Your task to perform on an android device: turn off sleep mode Image 0: 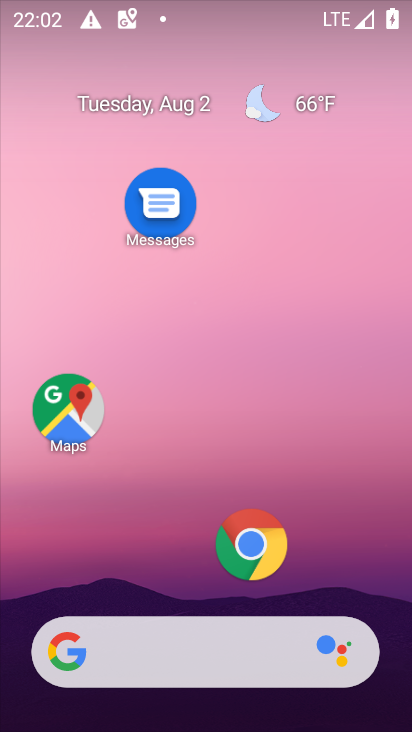
Step 0: drag from (176, 584) to (182, 226)
Your task to perform on an android device: turn off sleep mode Image 1: 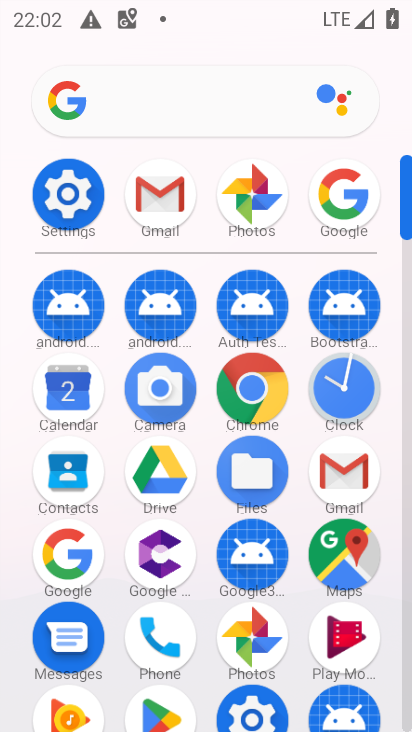
Step 1: click (78, 186)
Your task to perform on an android device: turn off sleep mode Image 2: 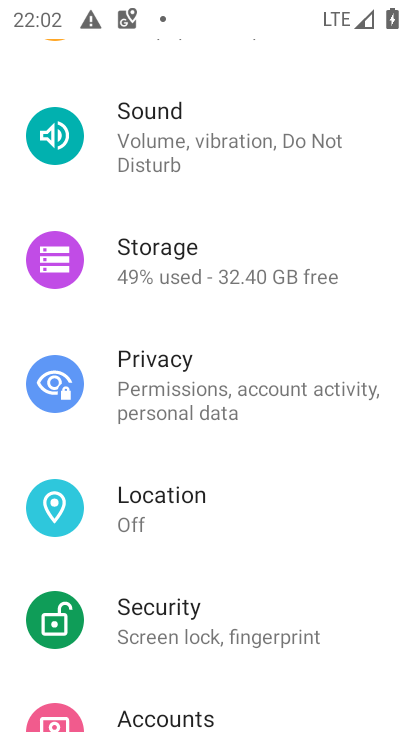
Step 2: drag from (181, 215) to (180, 645)
Your task to perform on an android device: turn off sleep mode Image 3: 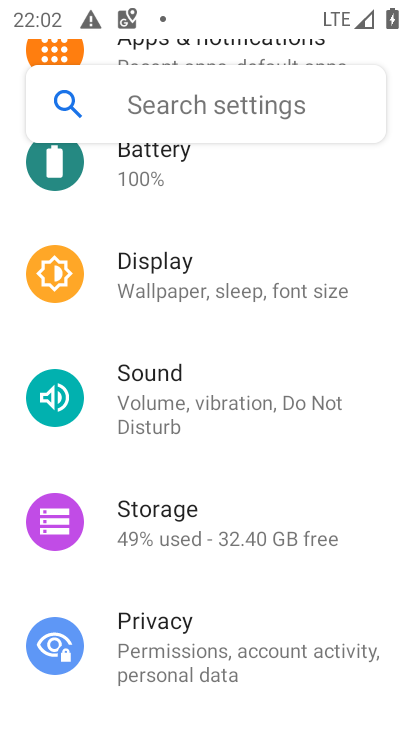
Step 3: click (179, 299)
Your task to perform on an android device: turn off sleep mode Image 4: 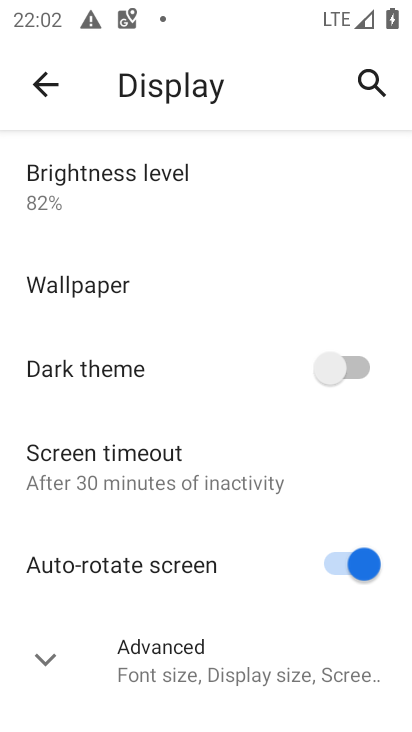
Step 4: click (167, 469)
Your task to perform on an android device: turn off sleep mode Image 5: 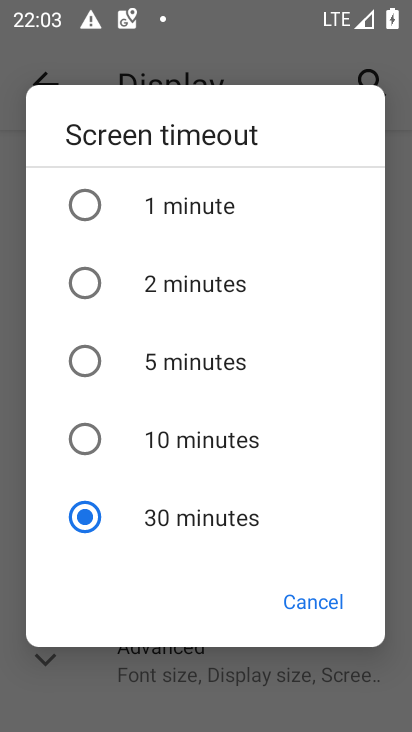
Step 5: click (181, 229)
Your task to perform on an android device: turn off sleep mode Image 6: 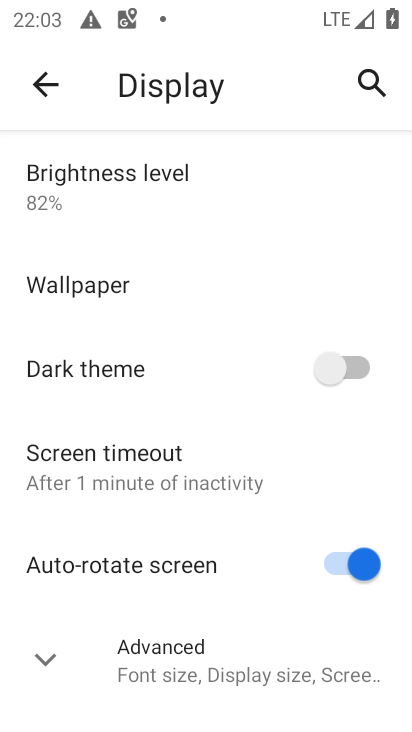
Step 6: task complete